Your task to perform on an android device: show emergency info Image 0: 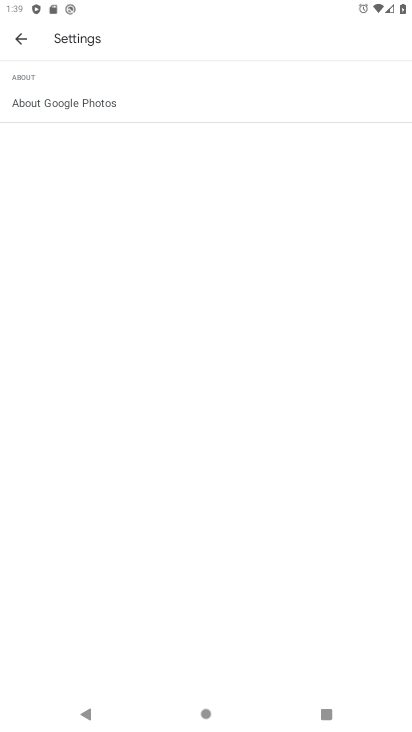
Step 0: press home button
Your task to perform on an android device: show emergency info Image 1: 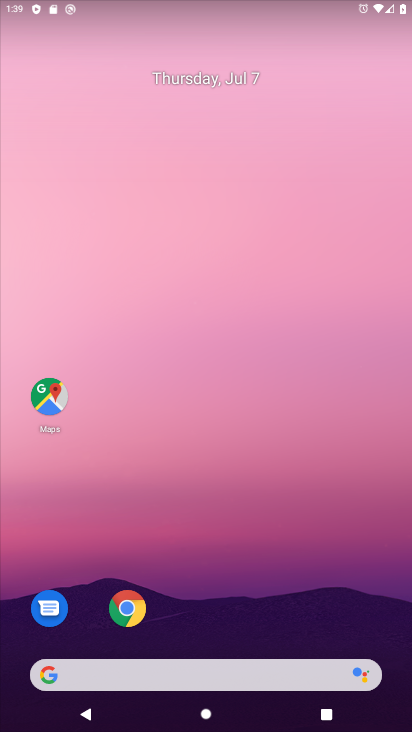
Step 1: drag from (240, 715) to (240, 252)
Your task to perform on an android device: show emergency info Image 2: 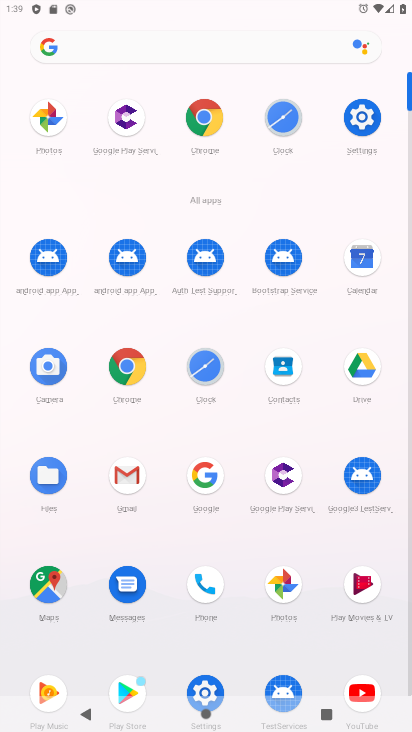
Step 2: click (354, 109)
Your task to perform on an android device: show emergency info Image 3: 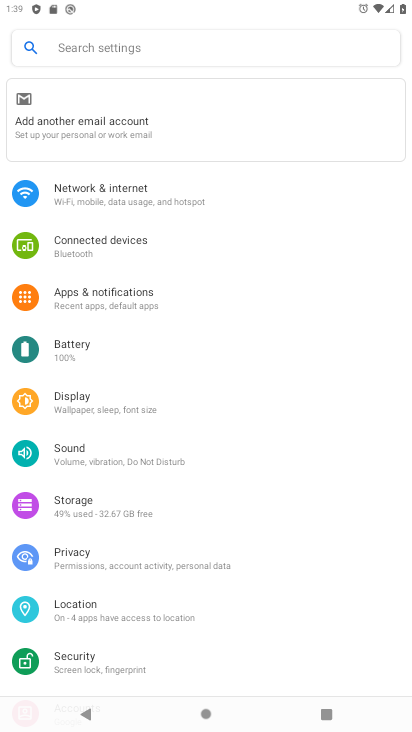
Step 3: drag from (153, 638) to (153, 330)
Your task to perform on an android device: show emergency info Image 4: 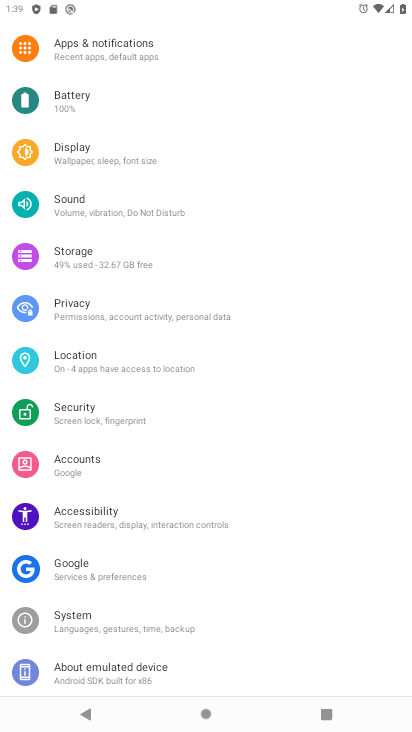
Step 4: click (124, 670)
Your task to perform on an android device: show emergency info Image 5: 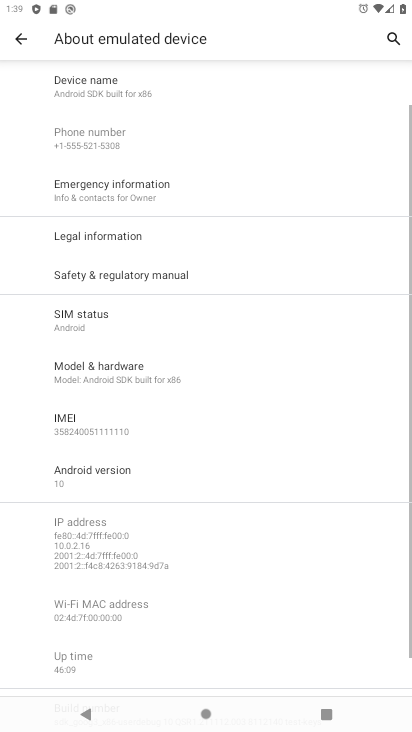
Step 5: click (139, 187)
Your task to perform on an android device: show emergency info Image 6: 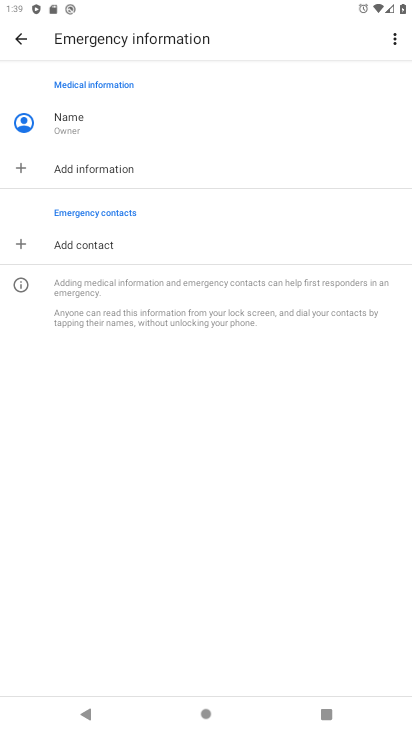
Step 6: task complete